Your task to perform on an android device: Open calendar and show me the fourth week of next month Image 0: 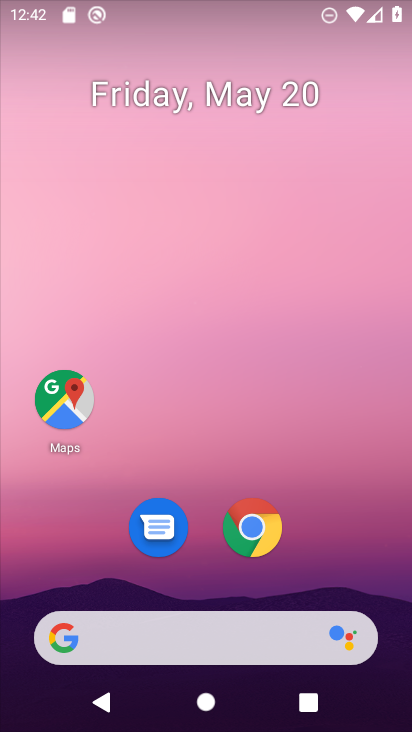
Step 0: press home button
Your task to perform on an android device: Open calendar and show me the fourth week of next month Image 1: 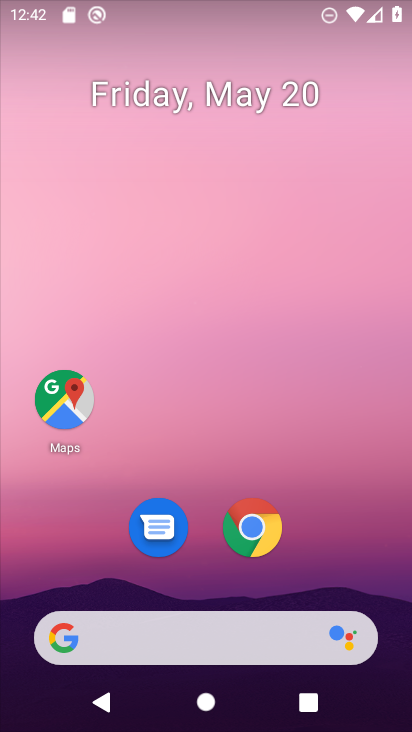
Step 1: drag from (385, 646) to (328, 134)
Your task to perform on an android device: Open calendar and show me the fourth week of next month Image 2: 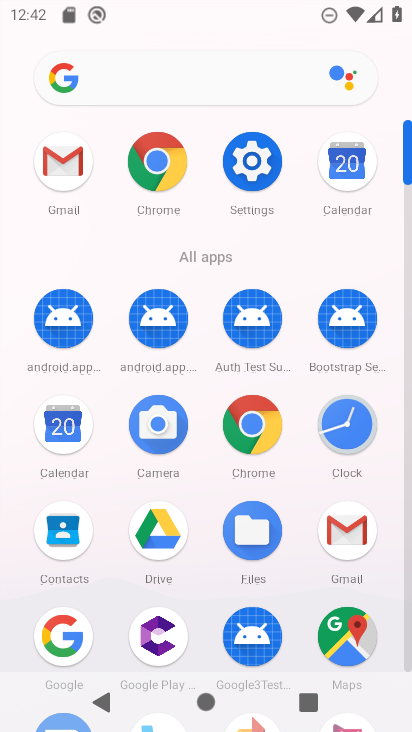
Step 2: click (55, 411)
Your task to perform on an android device: Open calendar and show me the fourth week of next month Image 3: 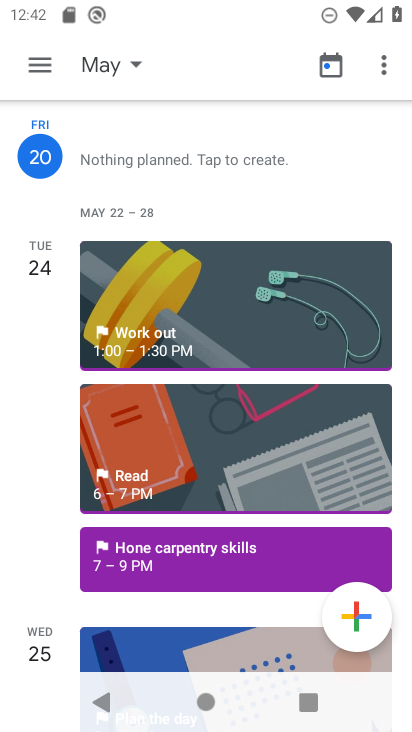
Step 3: click (383, 58)
Your task to perform on an android device: Open calendar and show me the fourth week of next month Image 4: 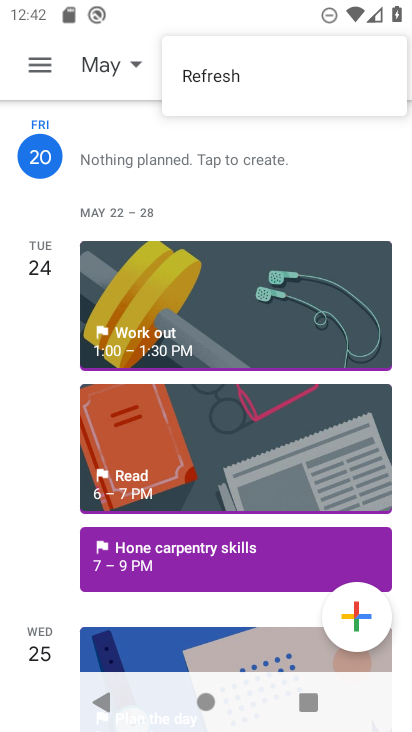
Step 4: click (130, 93)
Your task to perform on an android device: Open calendar and show me the fourth week of next month Image 5: 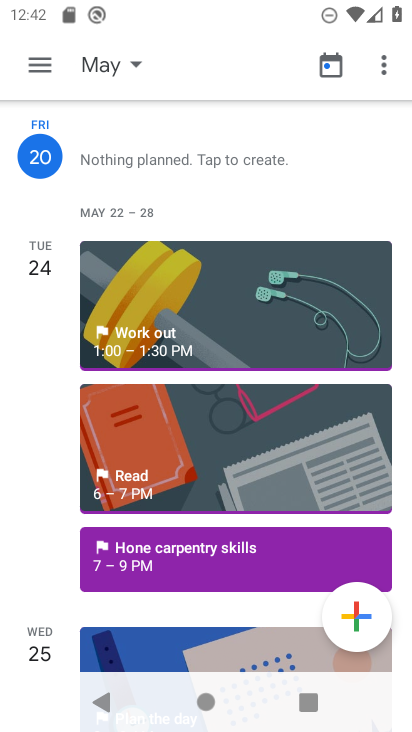
Step 5: click (129, 64)
Your task to perform on an android device: Open calendar and show me the fourth week of next month Image 6: 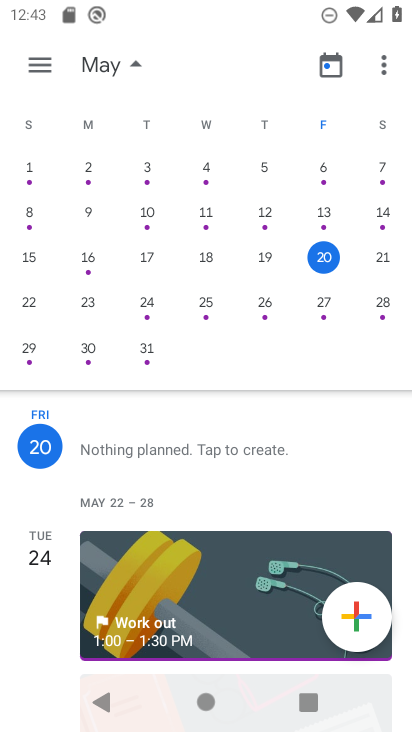
Step 6: drag from (407, 206) to (5, 502)
Your task to perform on an android device: Open calendar and show me the fourth week of next month Image 7: 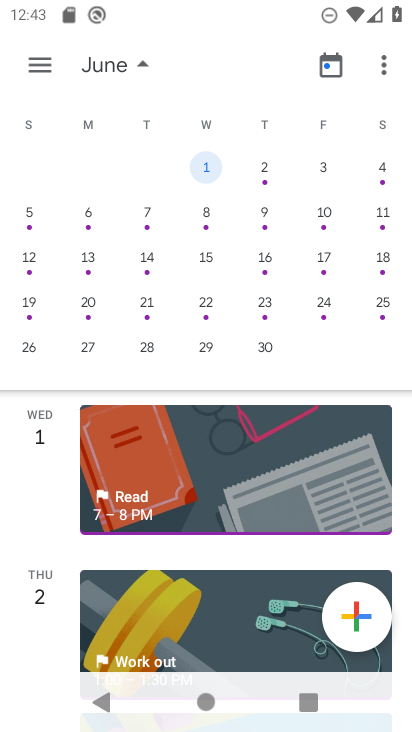
Step 7: click (266, 300)
Your task to perform on an android device: Open calendar and show me the fourth week of next month Image 8: 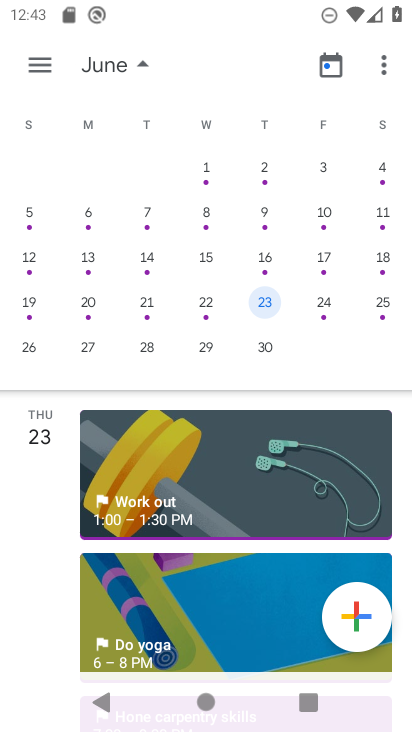
Step 8: click (48, 61)
Your task to perform on an android device: Open calendar and show me the fourth week of next month Image 9: 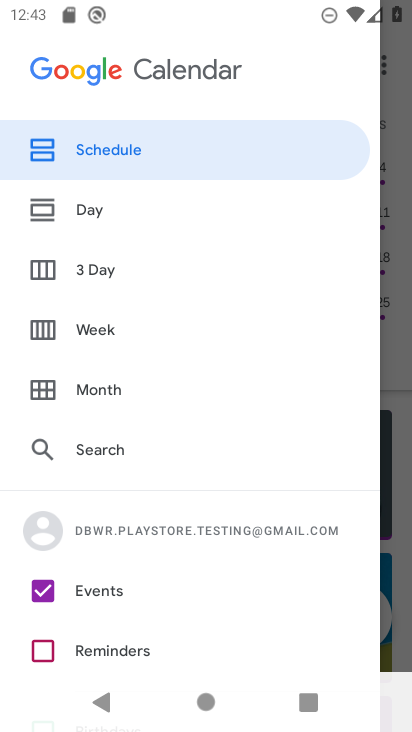
Step 9: click (92, 329)
Your task to perform on an android device: Open calendar and show me the fourth week of next month Image 10: 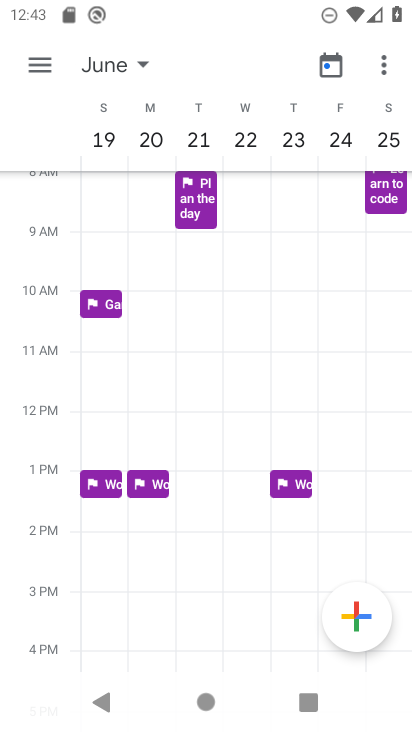
Step 10: task complete